Your task to perform on an android device: Go to accessibility settings Image 0: 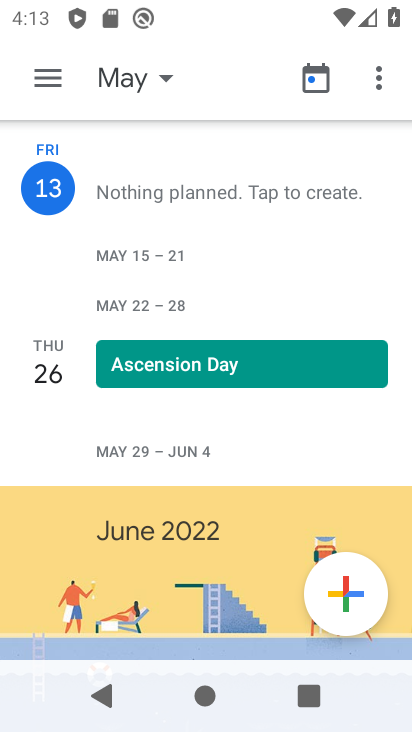
Step 0: press home button
Your task to perform on an android device: Go to accessibility settings Image 1: 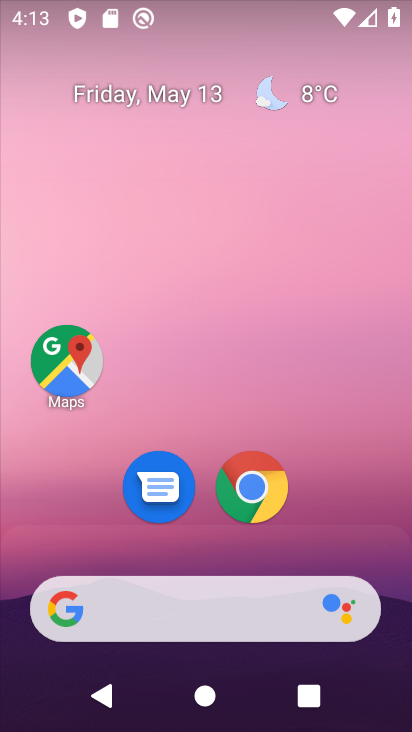
Step 1: drag from (338, 429) to (392, 61)
Your task to perform on an android device: Go to accessibility settings Image 2: 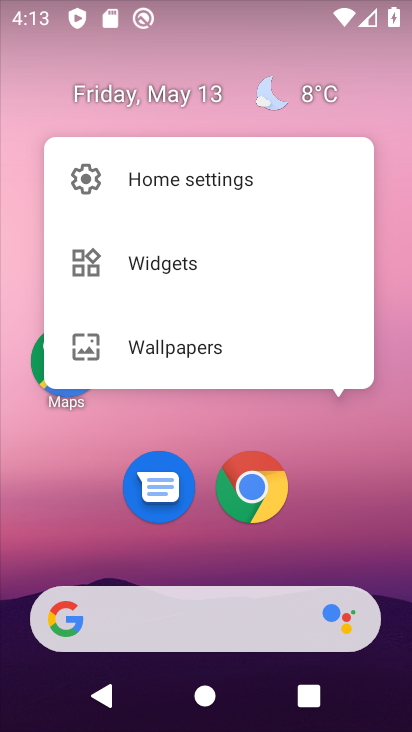
Step 2: click (372, 493)
Your task to perform on an android device: Go to accessibility settings Image 3: 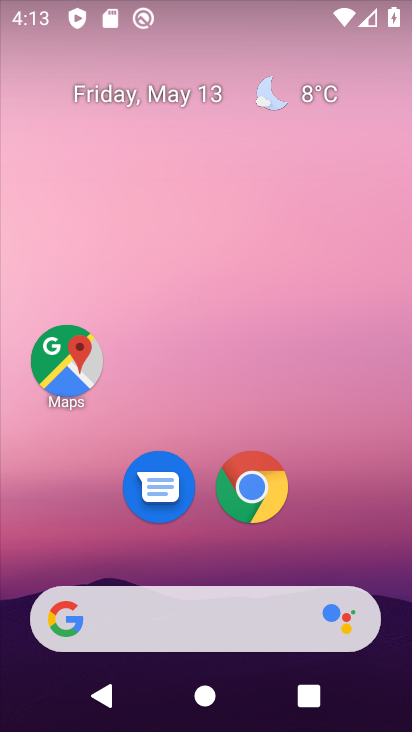
Step 3: drag from (372, 493) to (348, 77)
Your task to perform on an android device: Go to accessibility settings Image 4: 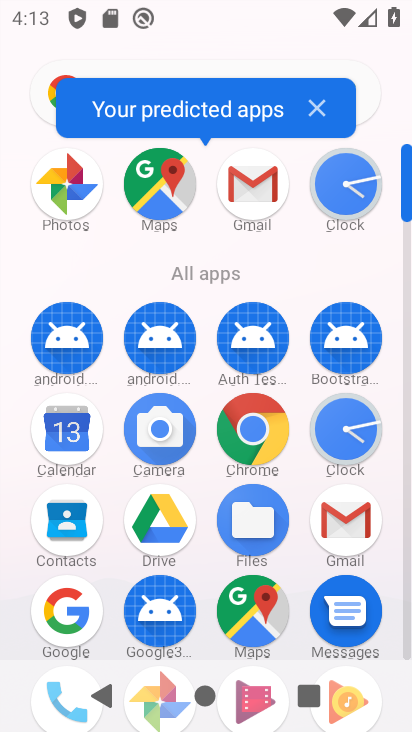
Step 4: click (410, 345)
Your task to perform on an android device: Go to accessibility settings Image 5: 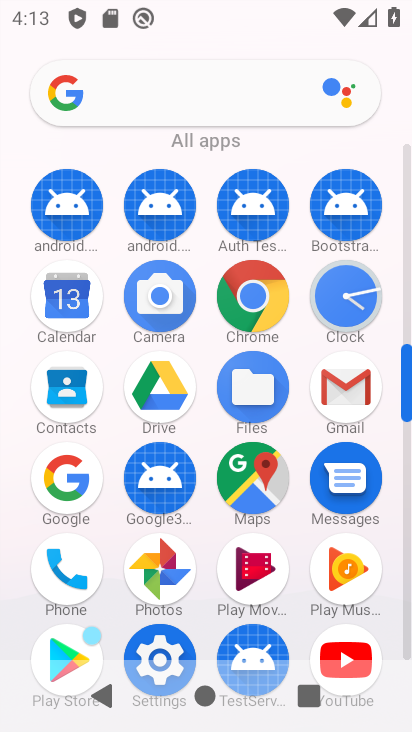
Step 5: click (158, 624)
Your task to perform on an android device: Go to accessibility settings Image 6: 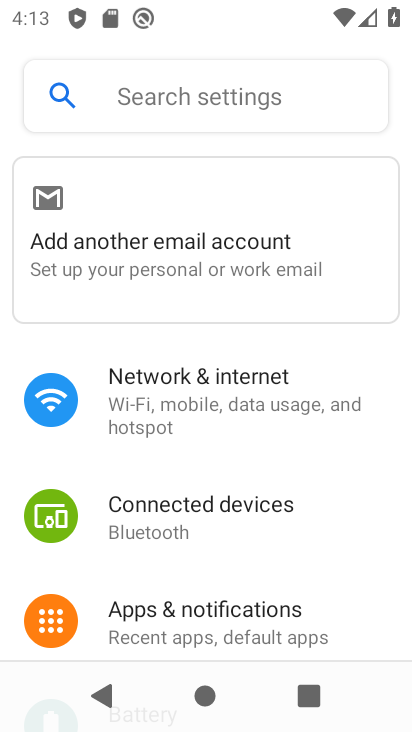
Step 6: drag from (183, 576) to (213, 96)
Your task to perform on an android device: Go to accessibility settings Image 7: 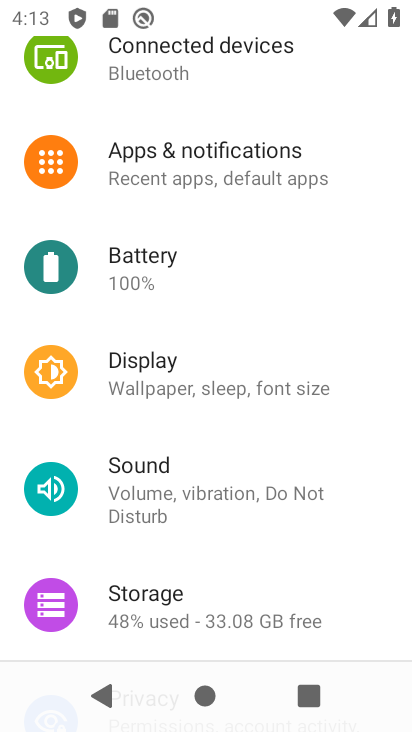
Step 7: drag from (154, 564) to (226, 266)
Your task to perform on an android device: Go to accessibility settings Image 8: 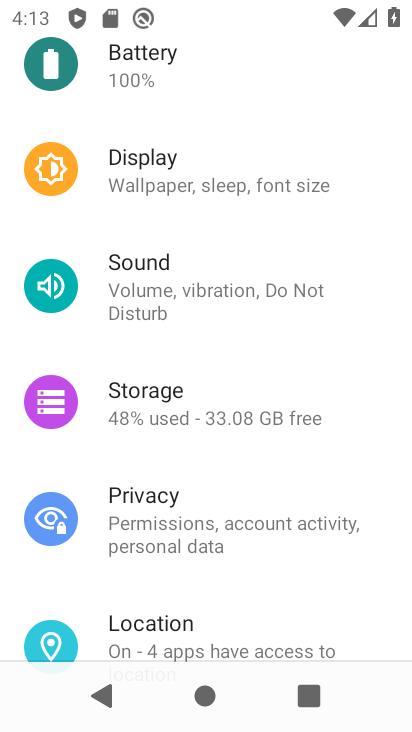
Step 8: drag from (182, 586) to (264, 242)
Your task to perform on an android device: Go to accessibility settings Image 9: 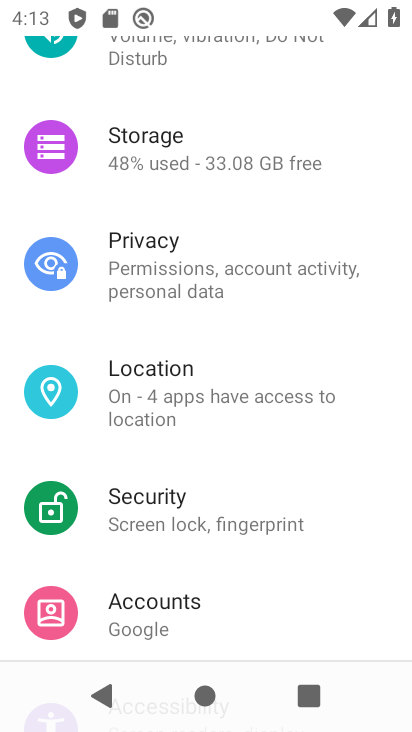
Step 9: drag from (193, 574) to (271, 251)
Your task to perform on an android device: Go to accessibility settings Image 10: 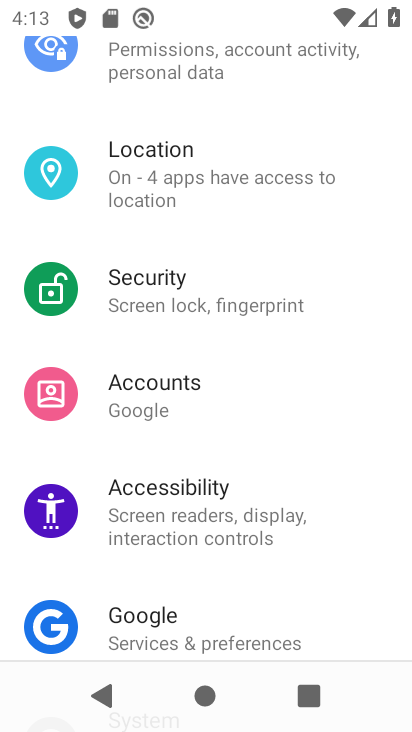
Step 10: click (201, 484)
Your task to perform on an android device: Go to accessibility settings Image 11: 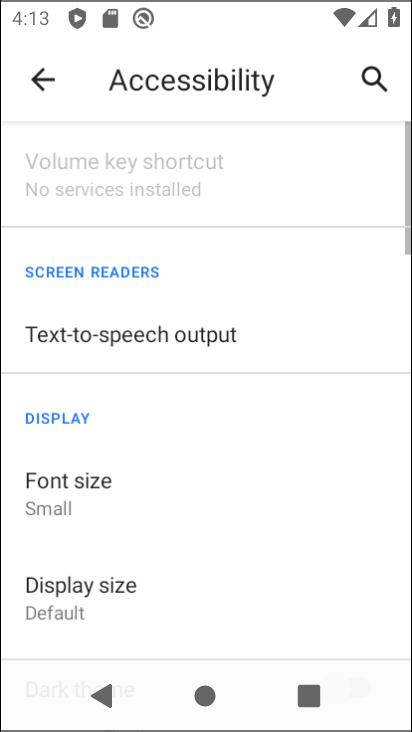
Step 11: task complete